Your task to perform on an android device: Search for Mexican restaurants on Maps Image 0: 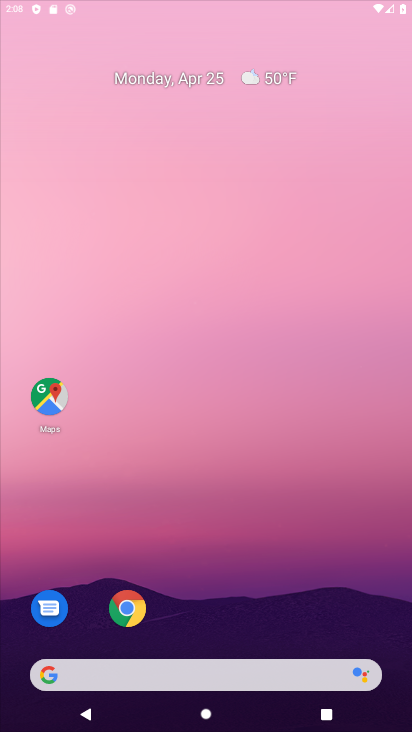
Step 0: click (176, 661)
Your task to perform on an android device: Search for Mexican restaurants on Maps Image 1: 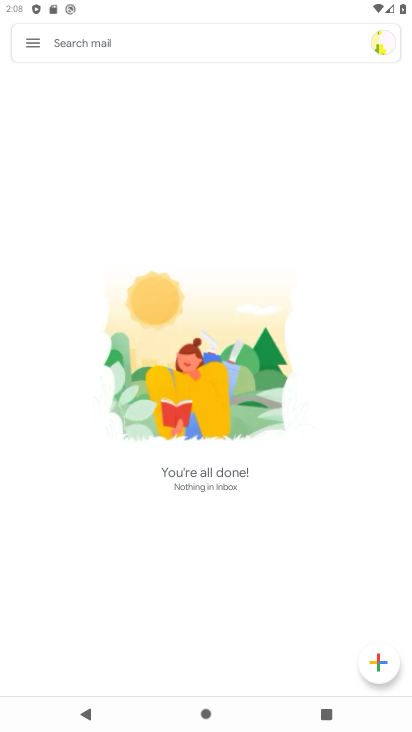
Step 1: press home button
Your task to perform on an android device: Search for Mexican restaurants on Maps Image 2: 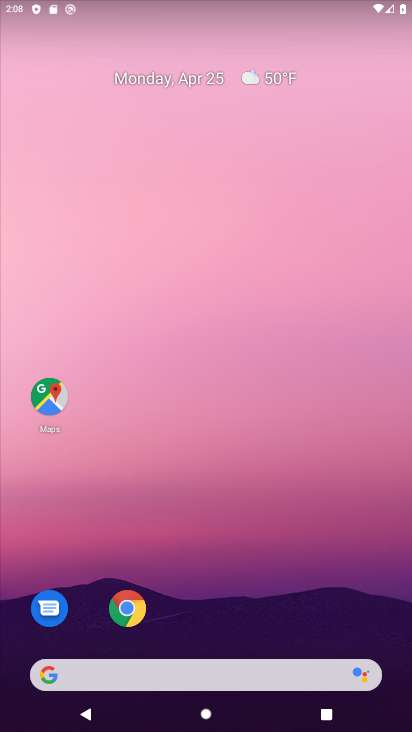
Step 2: click (52, 404)
Your task to perform on an android device: Search for Mexican restaurants on Maps Image 3: 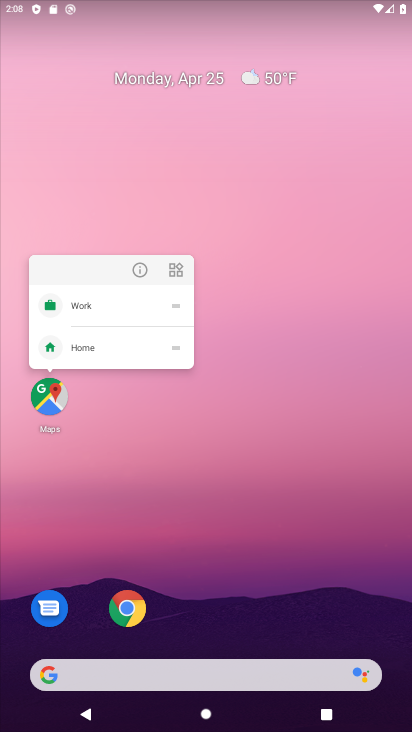
Step 3: click (52, 404)
Your task to perform on an android device: Search for Mexican restaurants on Maps Image 4: 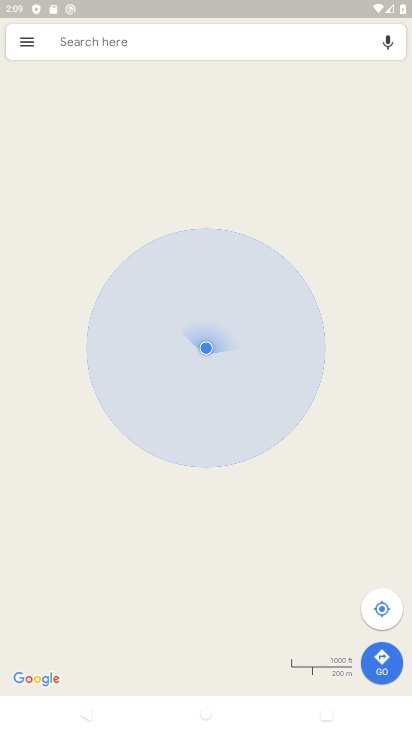
Step 4: click (174, 39)
Your task to perform on an android device: Search for Mexican restaurants on Maps Image 5: 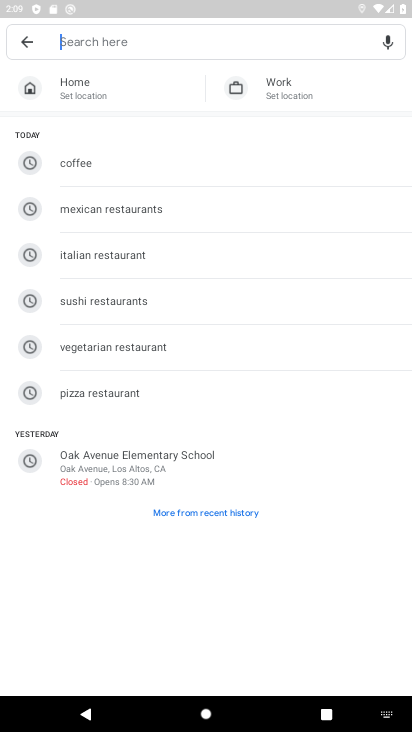
Step 5: type "Mexican restaurants"
Your task to perform on an android device: Search for Mexican restaurants on Maps Image 6: 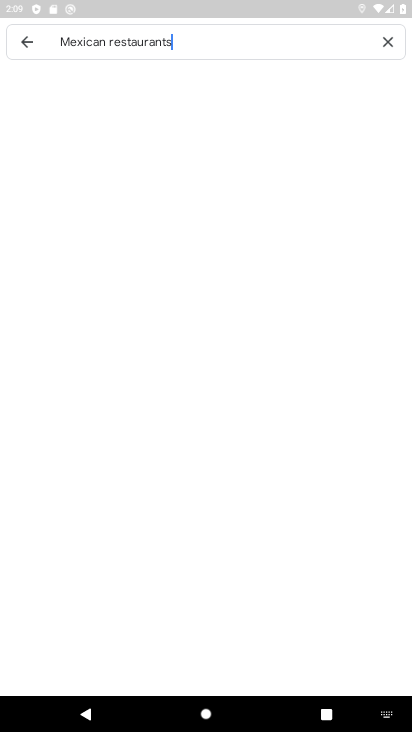
Step 6: click (195, 206)
Your task to perform on an android device: Search for Mexican restaurants on Maps Image 7: 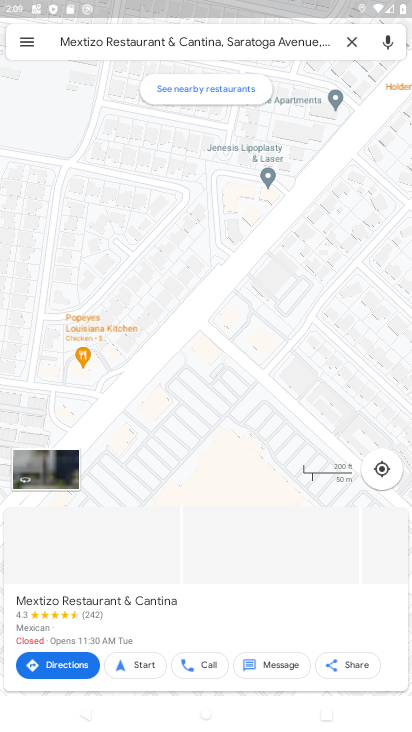
Step 7: task complete